Your task to perform on an android device: Do I have any events today? Image 0: 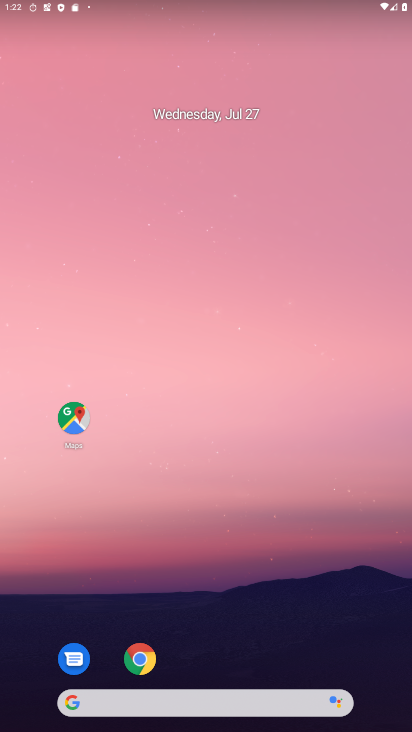
Step 0: press home button
Your task to perform on an android device: Do I have any events today? Image 1: 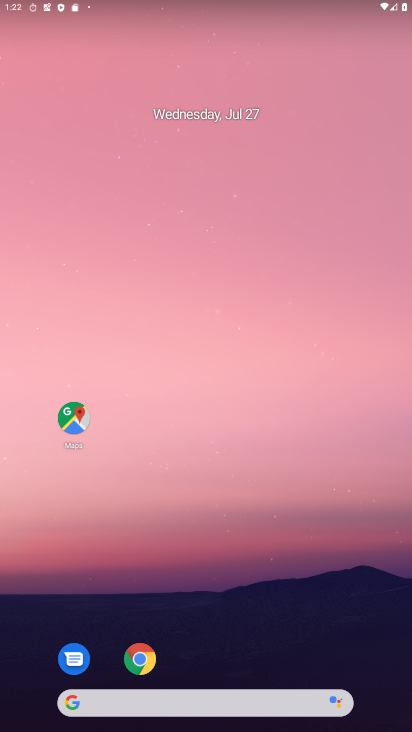
Step 1: drag from (230, 667) to (241, 8)
Your task to perform on an android device: Do I have any events today? Image 2: 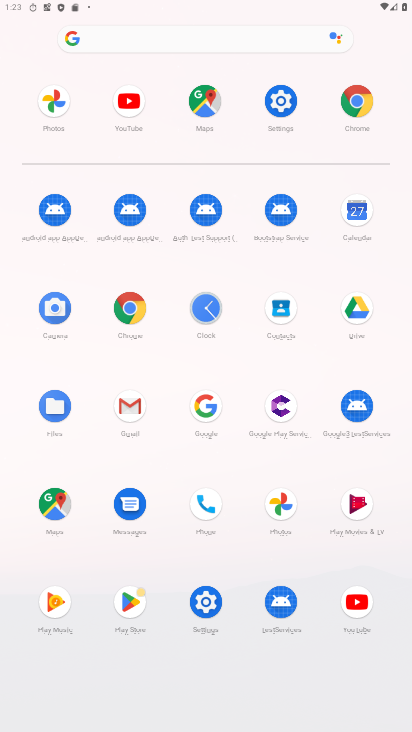
Step 2: click (354, 207)
Your task to perform on an android device: Do I have any events today? Image 3: 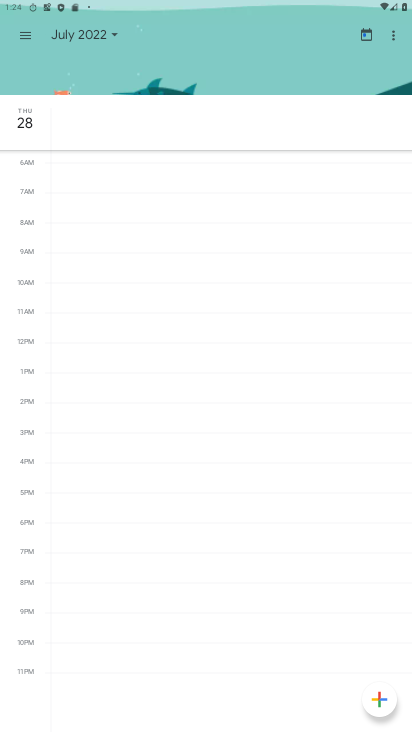
Step 3: task complete